Your task to perform on an android device: turn off location Image 0: 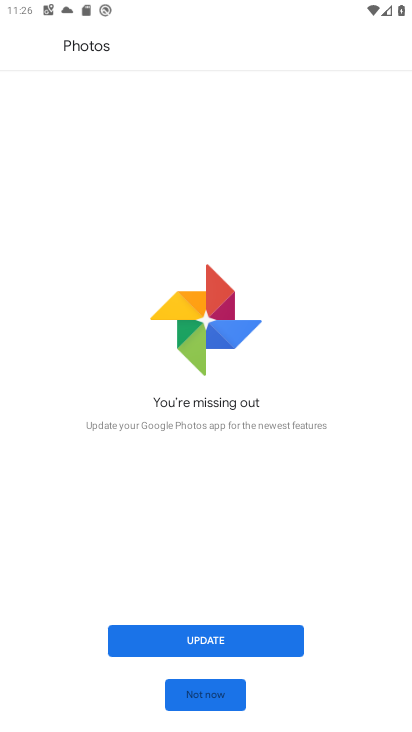
Step 0: press home button
Your task to perform on an android device: turn off location Image 1: 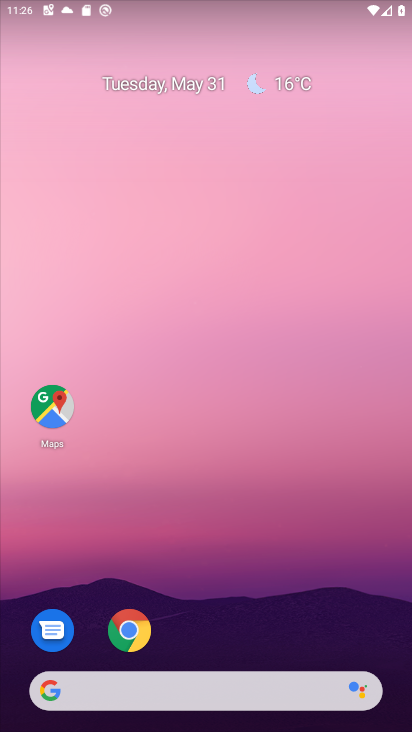
Step 1: drag from (290, 492) to (214, 182)
Your task to perform on an android device: turn off location Image 2: 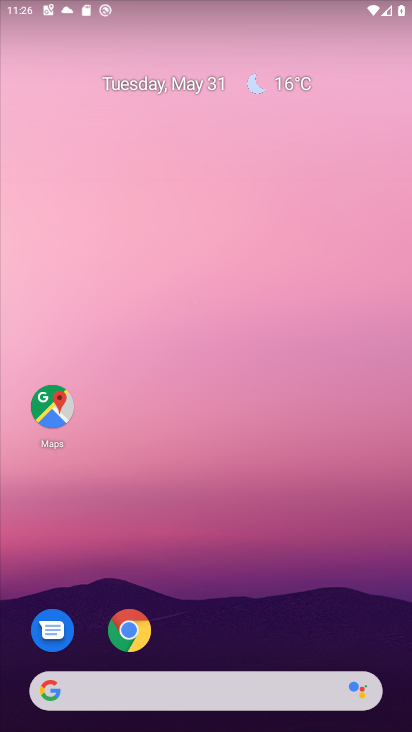
Step 2: drag from (262, 422) to (257, 20)
Your task to perform on an android device: turn off location Image 3: 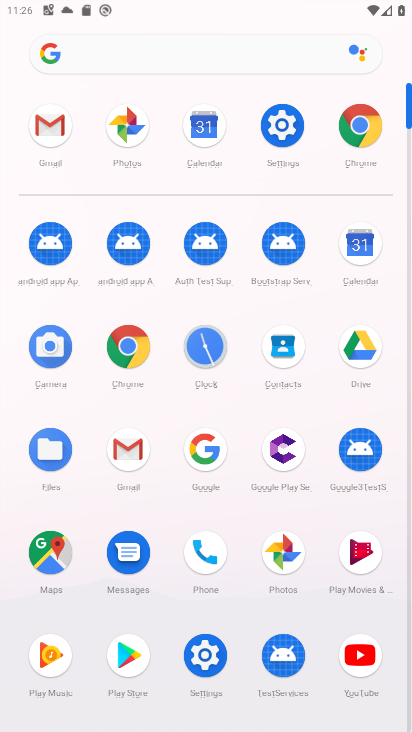
Step 3: click (278, 131)
Your task to perform on an android device: turn off location Image 4: 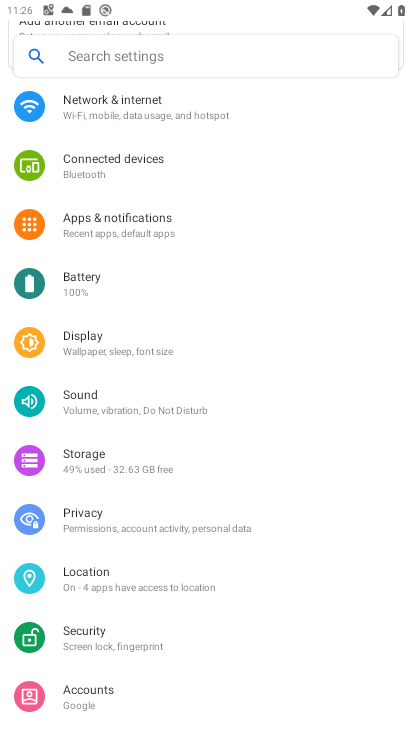
Step 4: click (120, 591)
Your task to perform on an android device: turn off location Image 5: 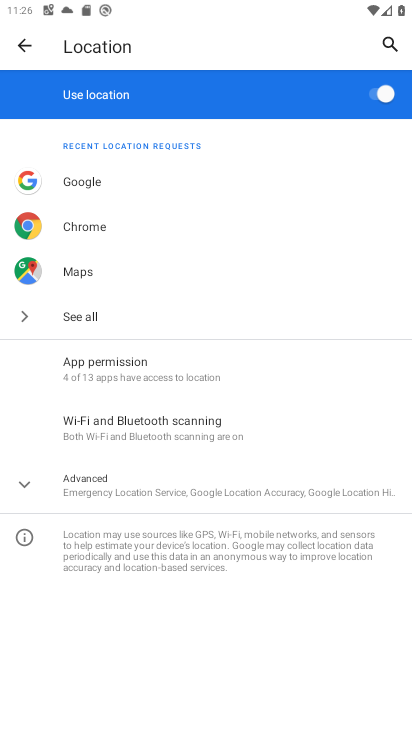
Step 5: click (368, 84)
Your task to perform on an android device: turn off location Image 6: 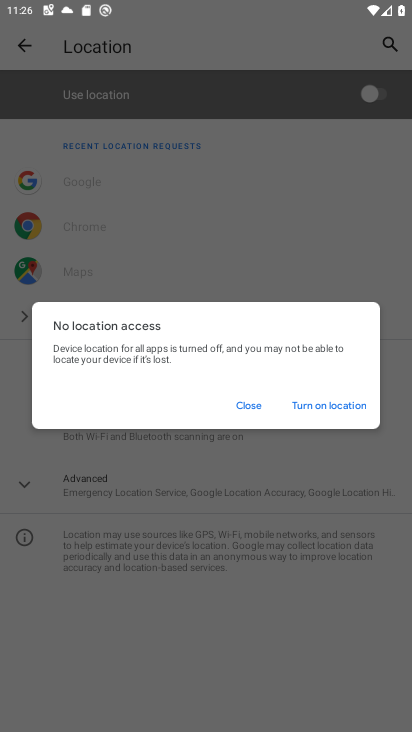
Step 6: task complete